Your task to perform on an android device: What is the recent news? Image 0: 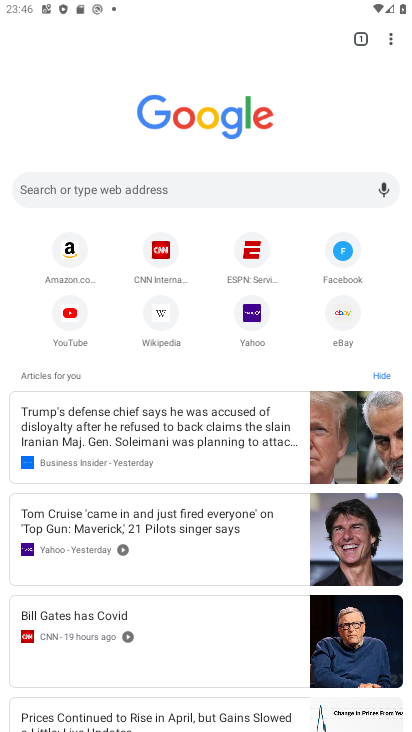
Step 0: press home button
Your task to perform on an android device: What is the recent news? Image 1: 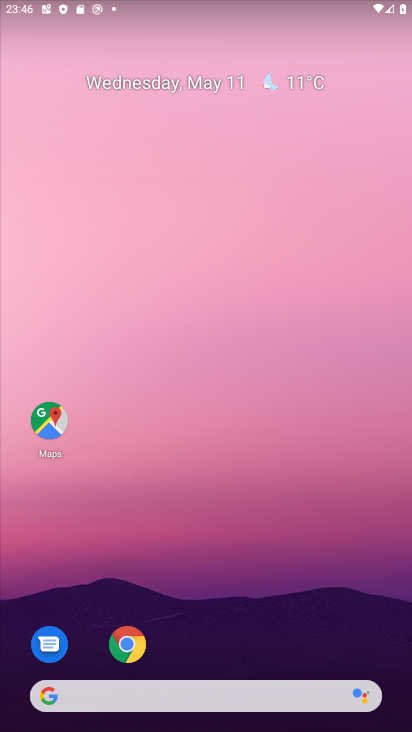
Step 1: task complete